Your task to perform on an android device: check battery use Image 0: 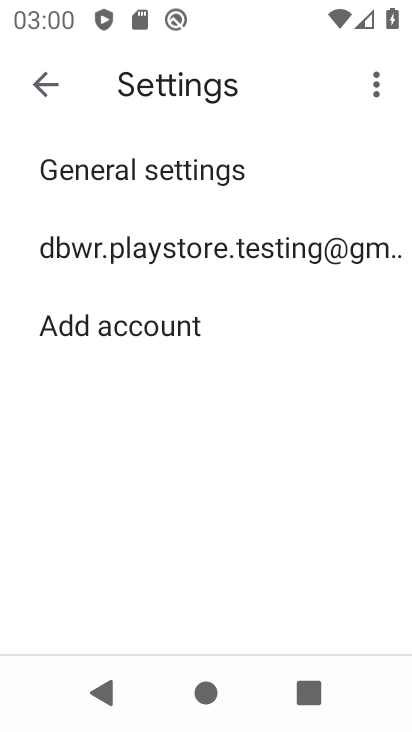
Step 0: press home button
Your task to perform on an android device: check battery use Image 1: 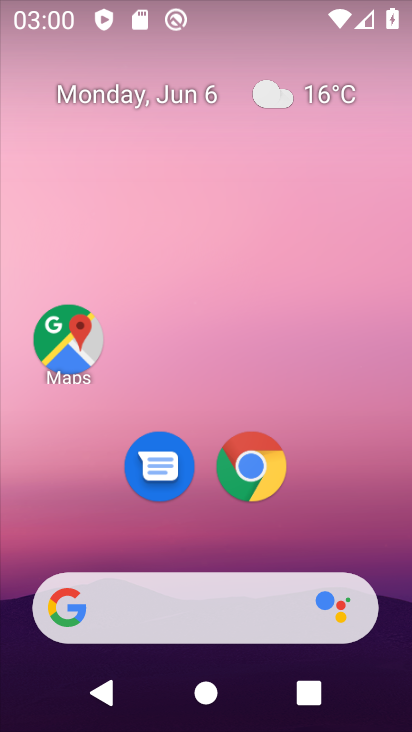
Step 1: drag from (339, 460) to (306, 148)
Your task to perform on an android device: check battery use Image 2: 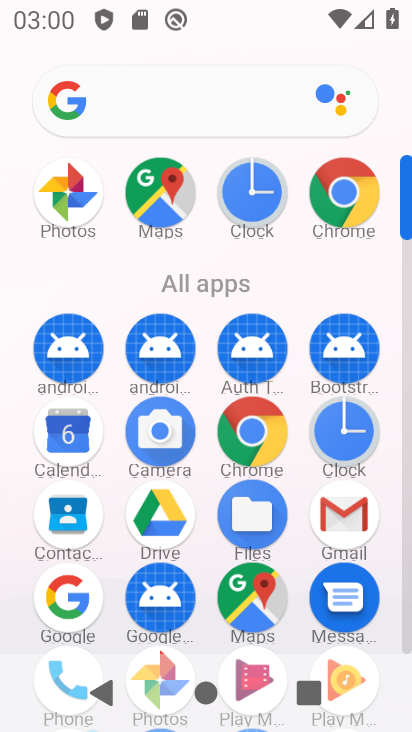
Step 2: drag from (304, 559) to (312, 223)
Your task to perform on an android device: check battery use Image 3: 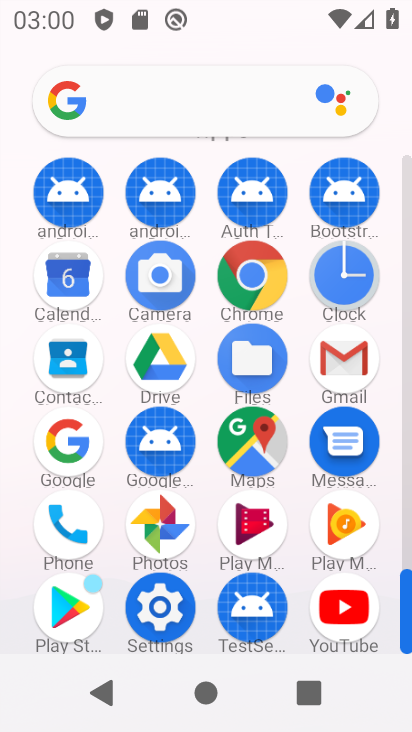
Step 3: click (188, 622)
Your task to perform on an android device: check battery use Image 4: 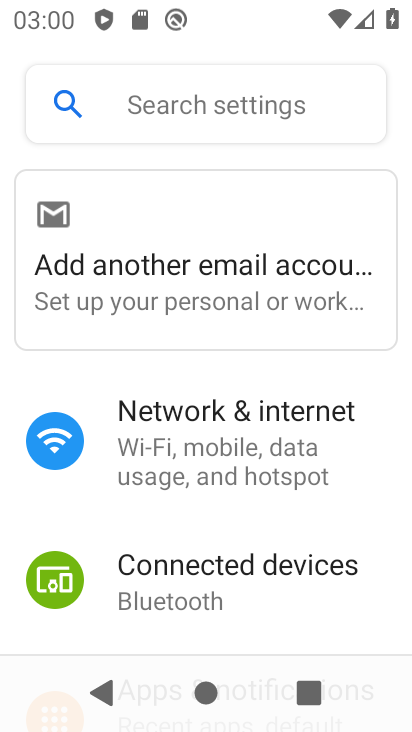
Step 4: drag from (290, 578) to (330, 223)
Your task to perform on an android device: check battery use Image 5: 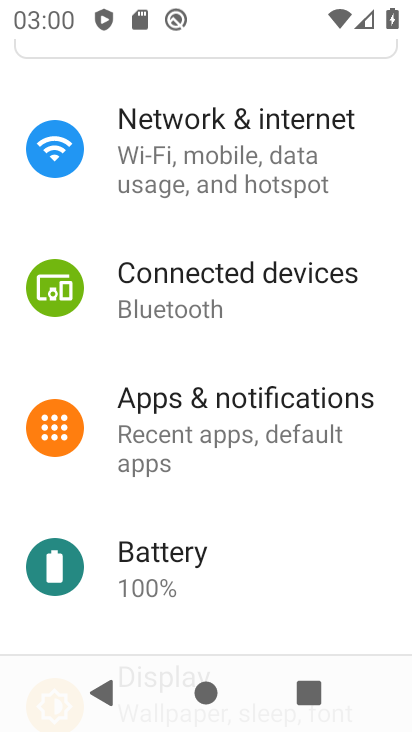
Step 5: click (140, 550)
Your task to perform on an android device: check battery use Image 6: 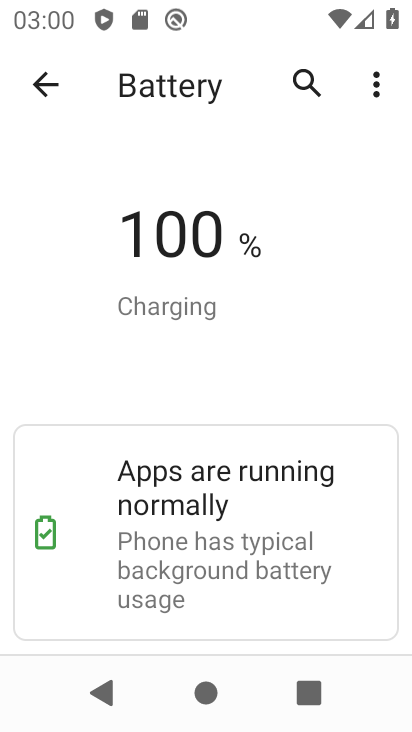
Step 6: click (382, 86)
Your task to perform on an android device: check battery use Image 7: 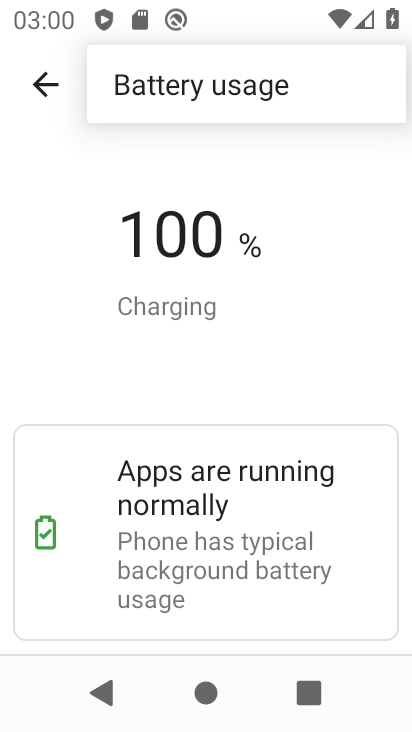
Step 7: click (272, 79)
Your task to perform on an android device: check battery use Image 8: 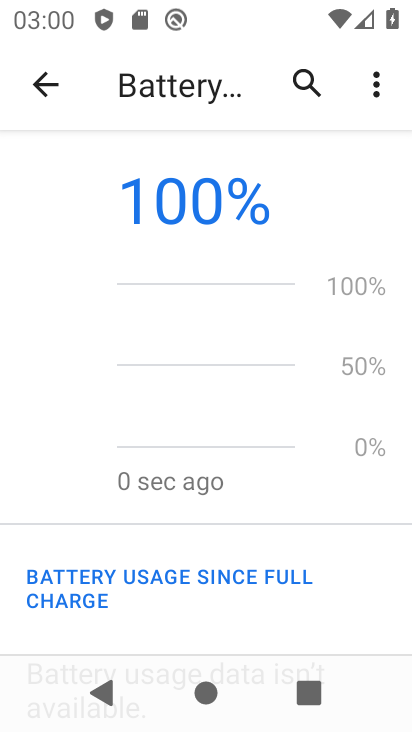
Step 8: task complete